Your task to perform on an android device: When is my next appointment? Image 0: 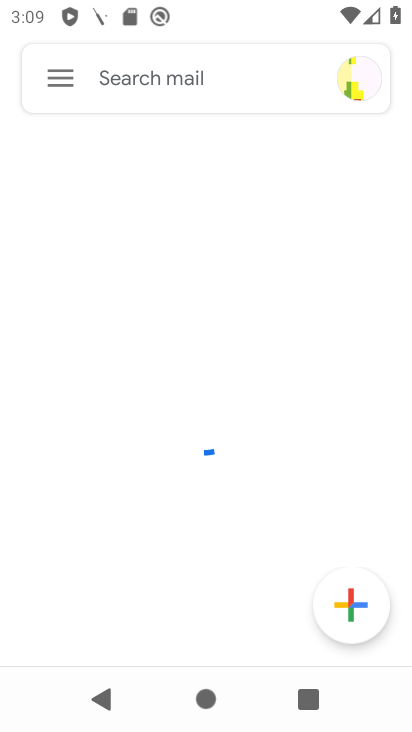
Step 0: press home button
Your task to perform on an android device: When is my next appointment? Image 1: 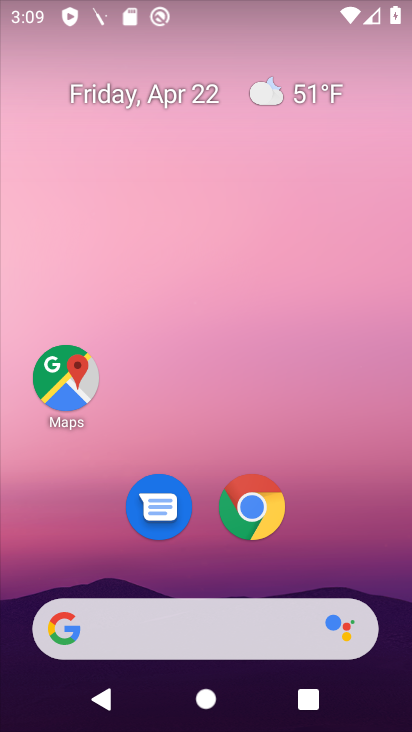
Step 1: drag from (175, 640) to (271, 194)
Your task to perform on an android device: When is my next appointment? Image 2: 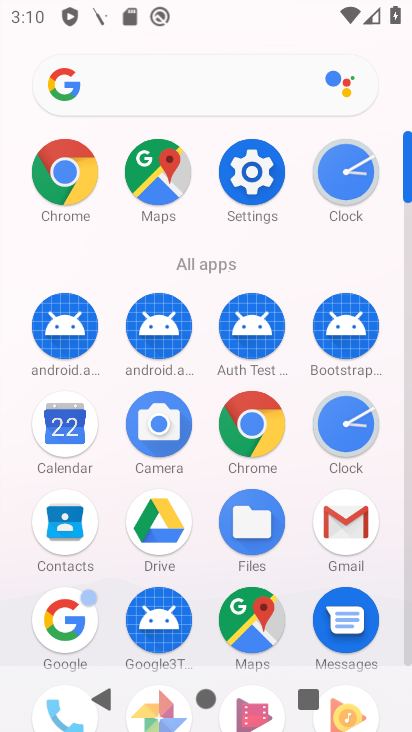
Step 2: click (63, 421)
Your task to perform on an android device: When is my next appointment? Image 3: 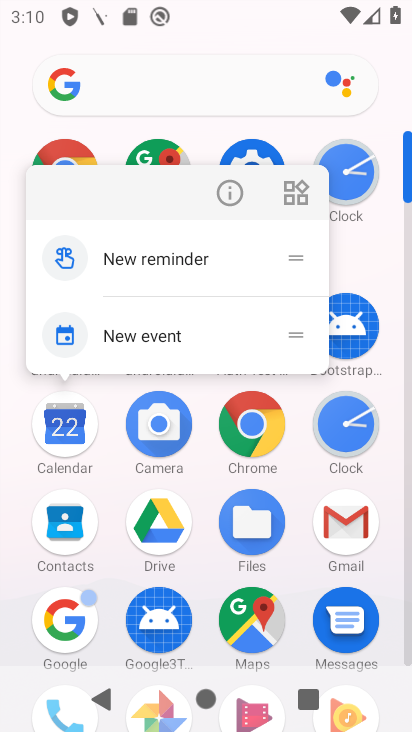
Step 3: click (64, 436)
Your task to perform on an android device: When is my next appointment? Image 4: 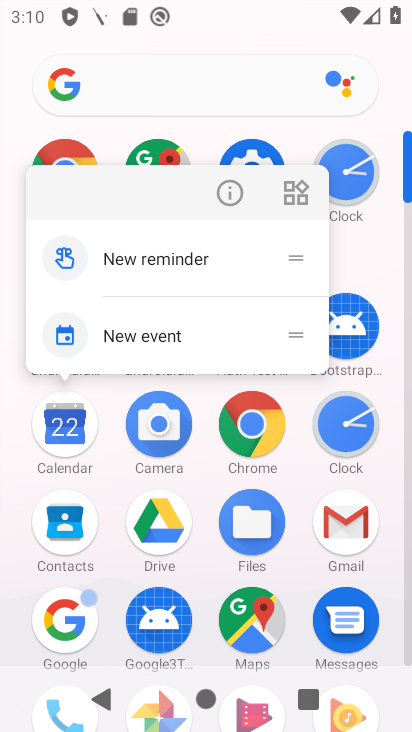
Step 4: click (62, 439)
Your task to perform on an android device: When is my next appointment? Image 5: 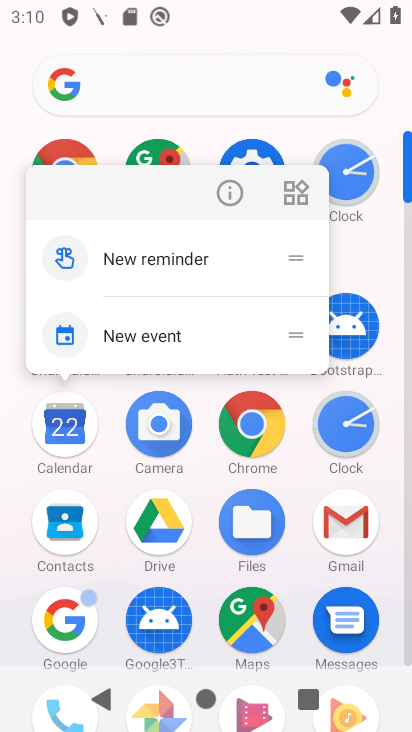
Step 5: click (74, 421)
Your task to perform on an android device: When is my next appointment? Image 6: 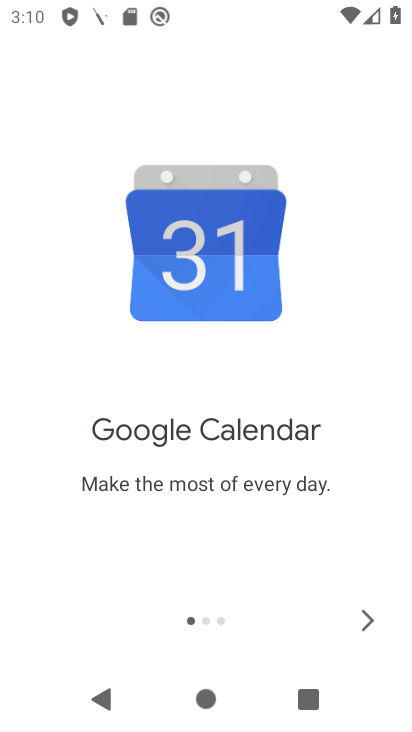
Step 6: click (364, 615)
Your task to perform on an android device: When is my next appointment? Image 7: 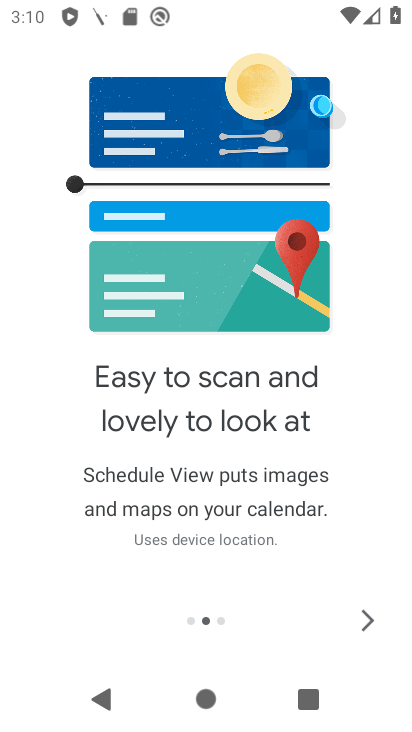
Step 7: click (364, 615)
Your task to perform on an android device: When is my next appointment? Image 8: 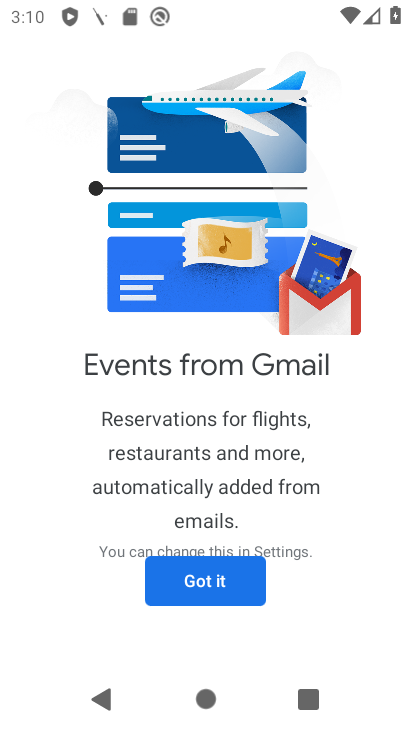
Step 8: click (221, 581)
Your task to perform on an android device: When is my next appointment? Image 9: 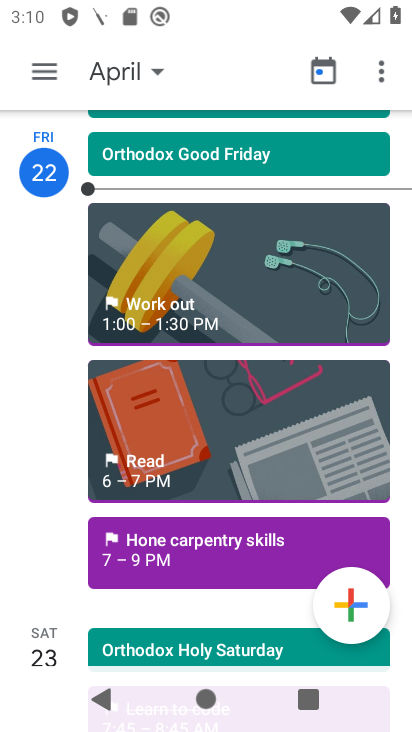
Step 9: click (119, 68)
Your task to perform on an android device: When is my next appointment? Image 10: 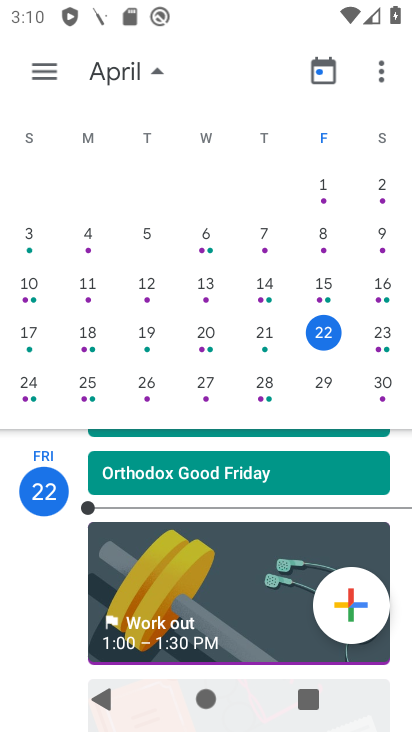
Step 10: click (326, 332)
Your task to perform on an android device: When is my next appointment? Image 11: 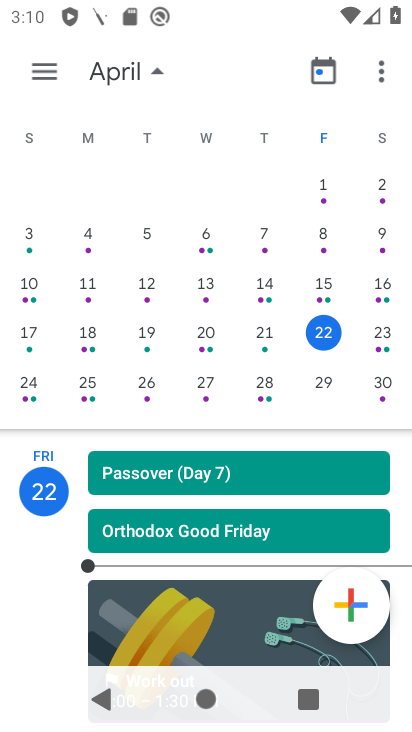
Step 11: click (47, 76)
Your task to perform on an android device: When is my next appointment? Image 12: 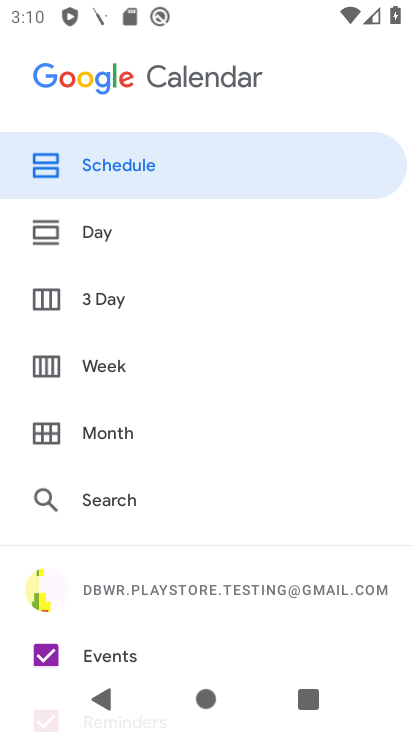
Step 12: click (132, 161)
Your task to perform on an android device: When is my next appointment? Image 13: 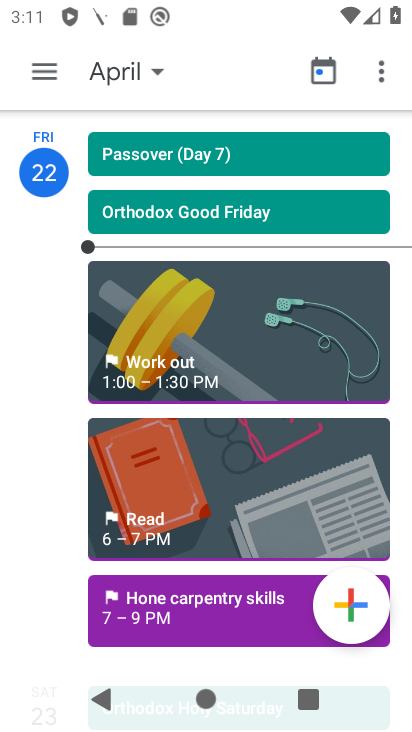
Step 13: task complete